Your task to perform on an android device: toggle notification dots Image 0: 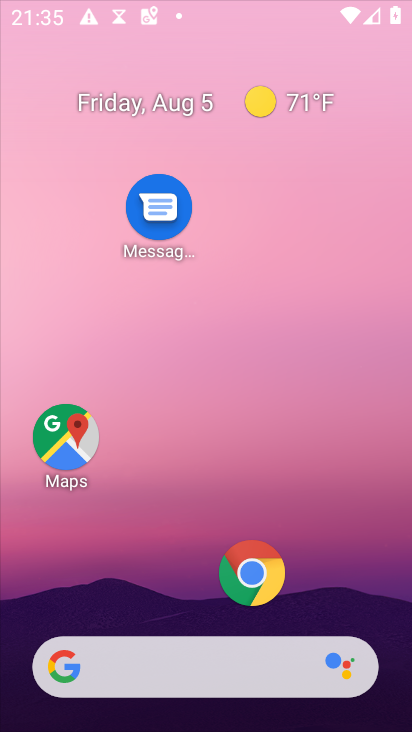
Step 0: press home button
Your task to perform on an android device: toggle notification dots Image 1: 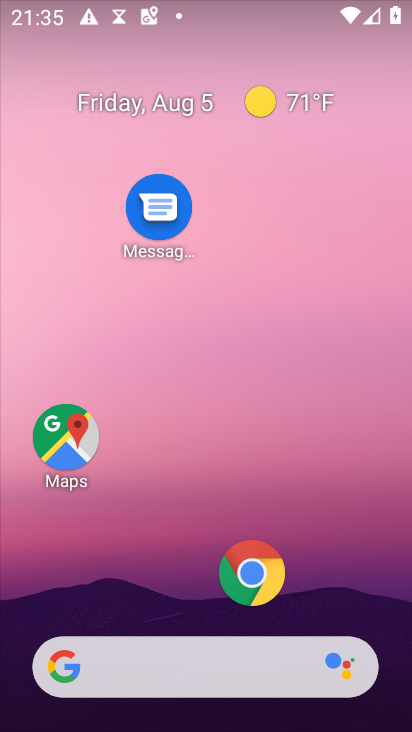
Step 1: drag from (202, 615) to (232, 76)
Your task to perform on an android device: toggle notification dots Image 2: 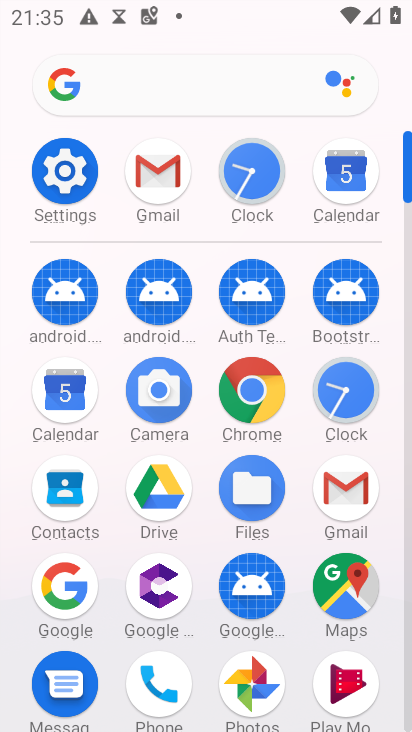
Step 2: drag from (204, 628) to (204, 137)
Your task to perform on an android device: toggle notification dots Image 3: 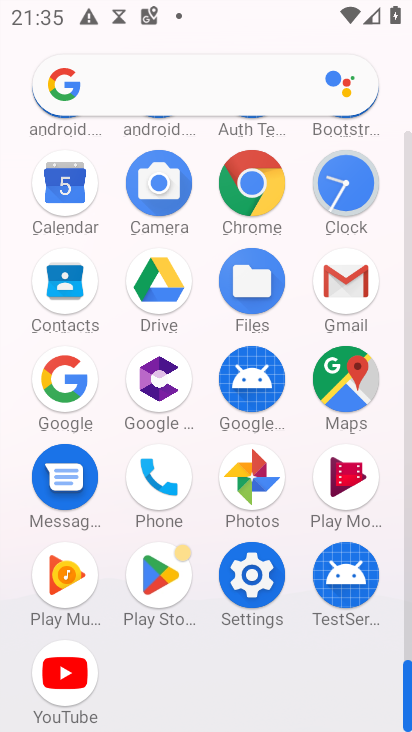
Step 3: click (250, 569)
Your task to perform on an android device: toggle notification dots Image 4: 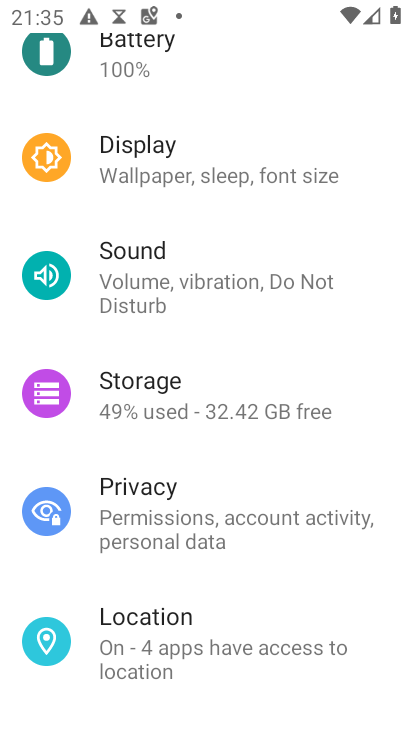
Step 4: drag from (182, 100) to (209, 576)
Your task to perform on an android device: toggle notification dots Image 5: 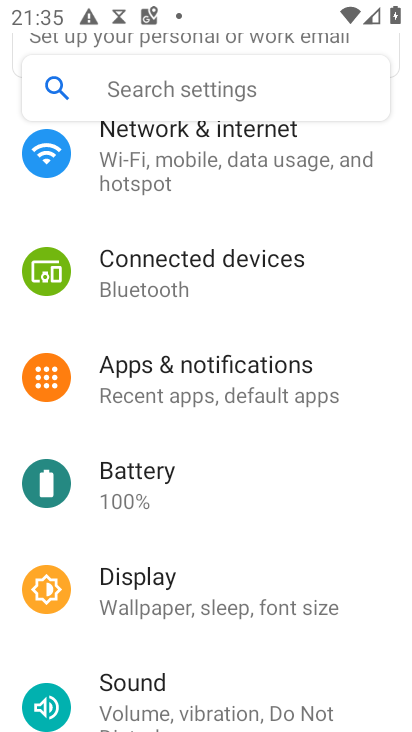
Step 5: click (85, 377)
Your task to perform on an android device: toggle notification dots Image 6: 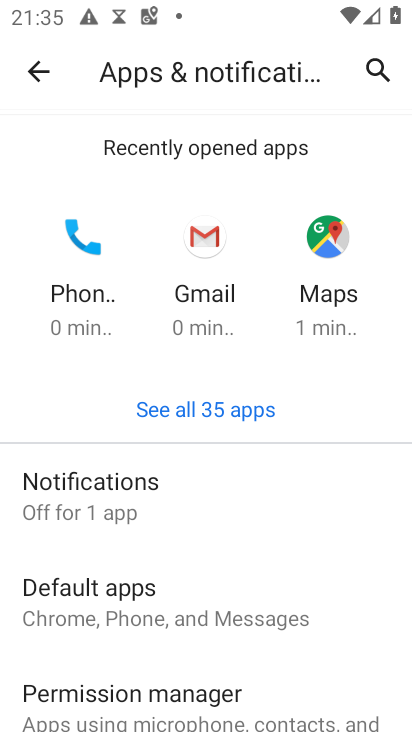
Step 6: click (159, 502)
Your task to perform on an android device: toggle notification dots Image 7: 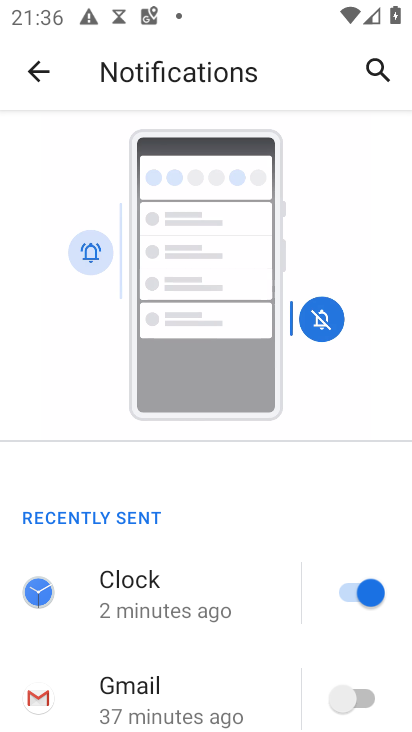
Step 7: drag from (219, 647) to (281, 214)
Your task to perform on an android device: toggle notification dots Image 8: 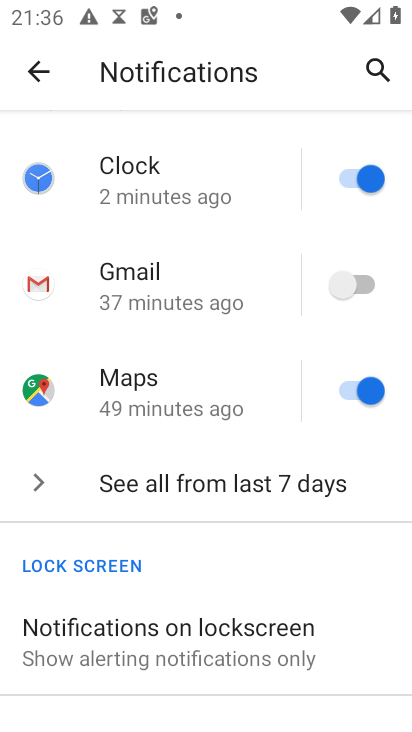
Step 8: drag from (216, 592) to (255, 129)
Your task to perform on an android device: toggle notification dots Image 9: 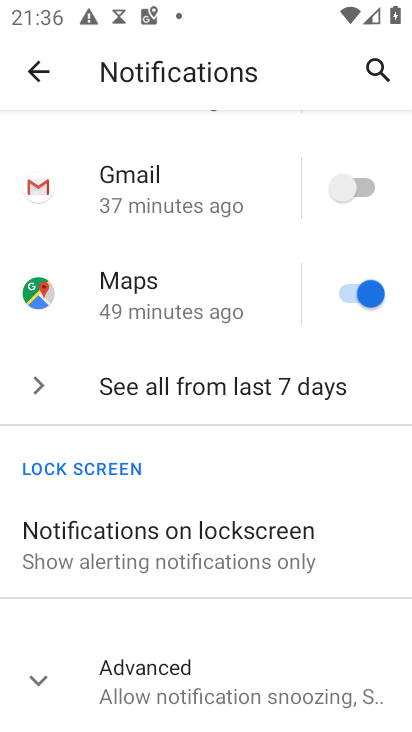
Step 9: click (36, 673)
Your task to perform on an android device: toggle notification dots Image 10: 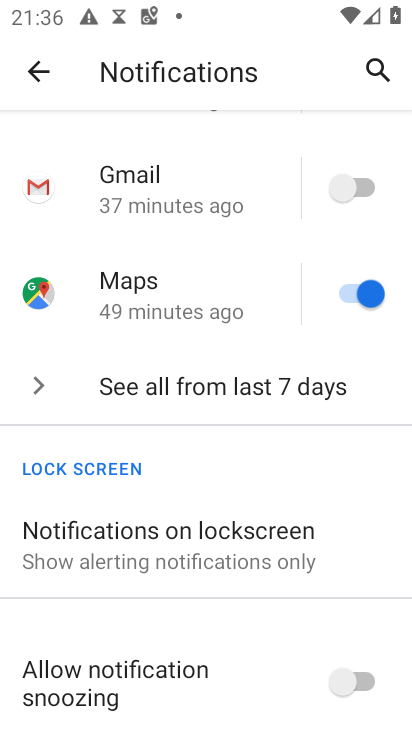
Step 10: drag from (200, 632) to (216, 214)
Your task to perform on an android device: toggle notification dots Image 11: 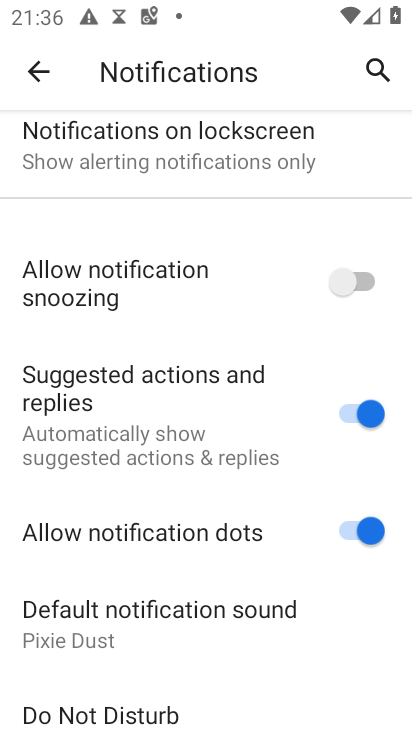
Step 11: click (358, 526)
Your task to perform on an android device: toggle notification dots Image 12: 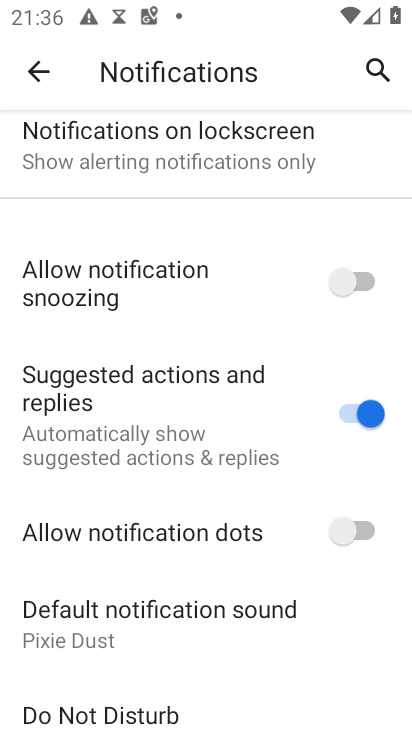
Step 12: task complete